Your task to perform on an android device: Open Yahoo.com Image 0: 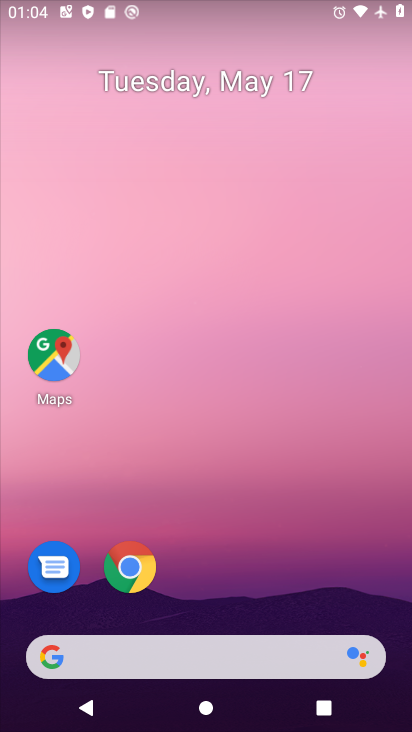
Step 0: click (126, 567)
Your task to perform on an android device: Open Yahoo.com Image 1: 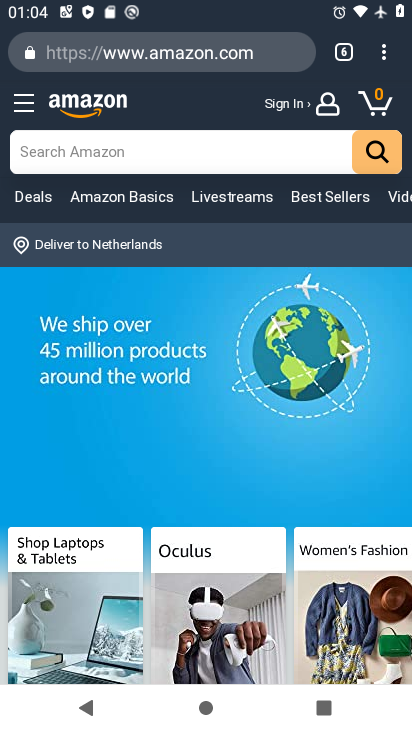
Step 1: click (382, 53)
Your task to perform on an android device: Open Yahoo.com Image 2: 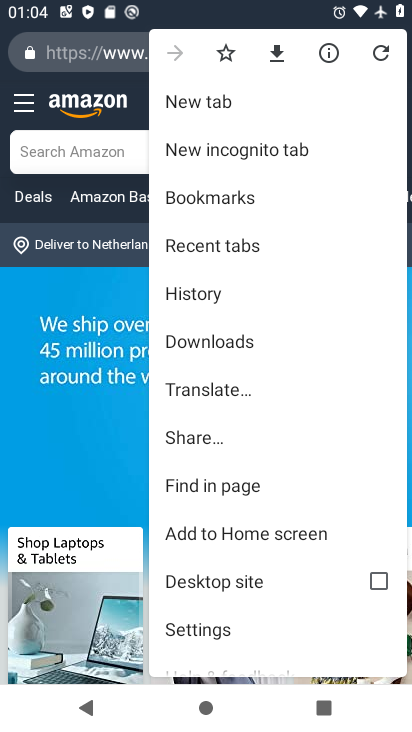
Step 2: click (218, 95)
Your task to perform on an android device: Open Yahoo.com Image 3: 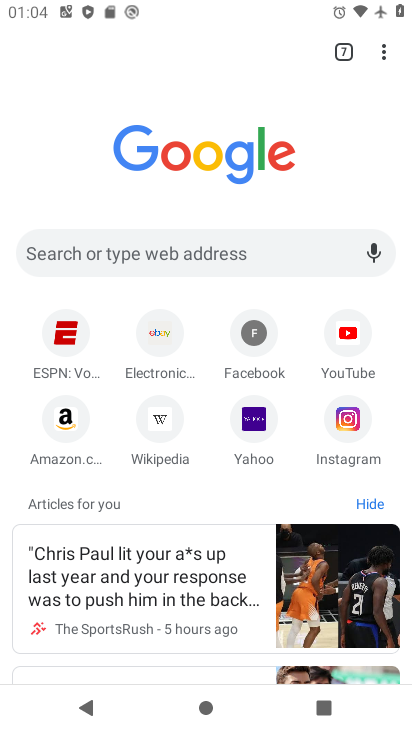
Step 3: click (250, 409)
Your task to perform on an android device: Open Yahoo.com Image 4: 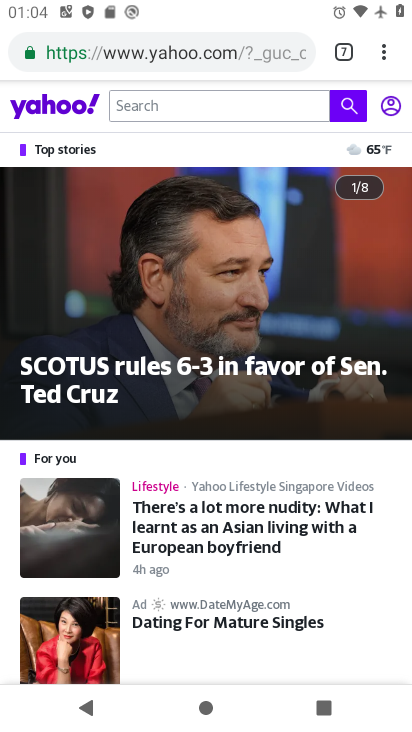
Step 4: task complete